Your task to perform on an android device: turn off improve location accuracy Image 0: 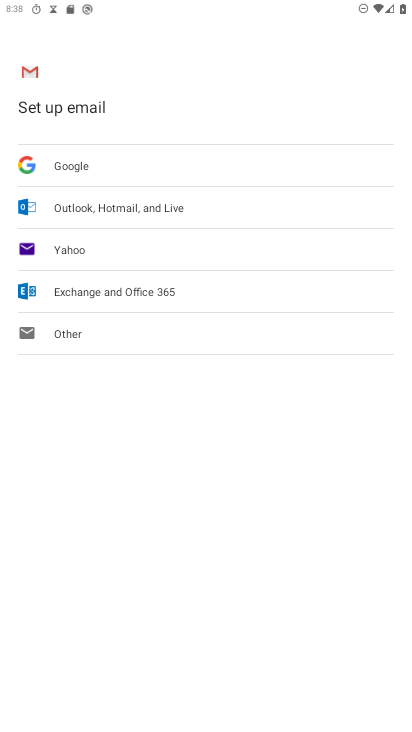
Step 0: press home button
Your task to perform on an android device: turn off improve location accuracy Image 1: 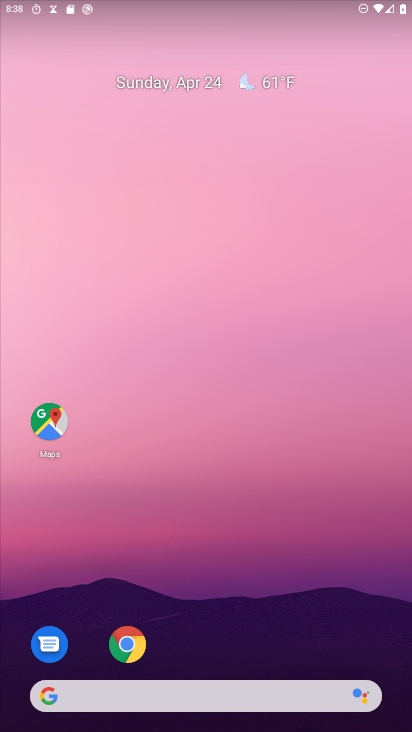
Step 1: drag from (179, 688) to (192, 104)
Your task to perform on an android device: turn off improve location accuracy Image 2: 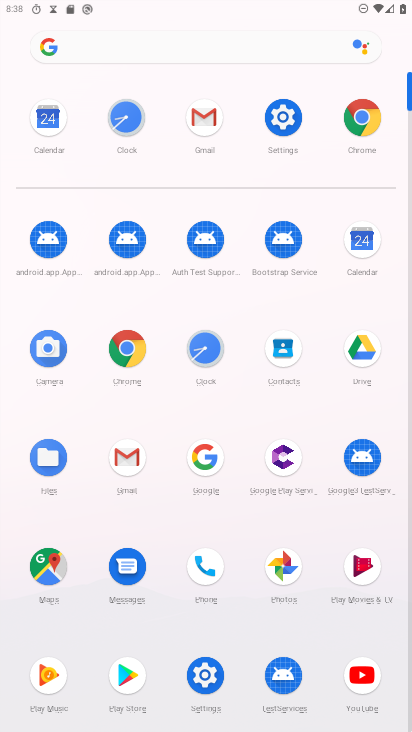
Step 2: click (212, 693)
Your task to perform on an android device: turn off improve location accuracy Image 3: 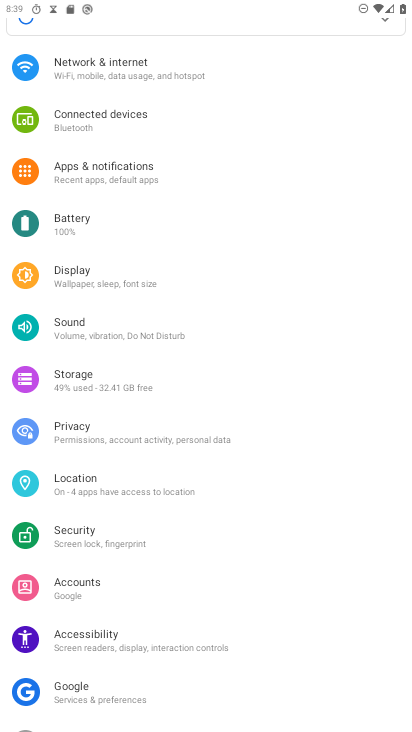
Step 3: click (108, 485)
Your task to perform on an android device: turn off improve location accuracy Image 4: 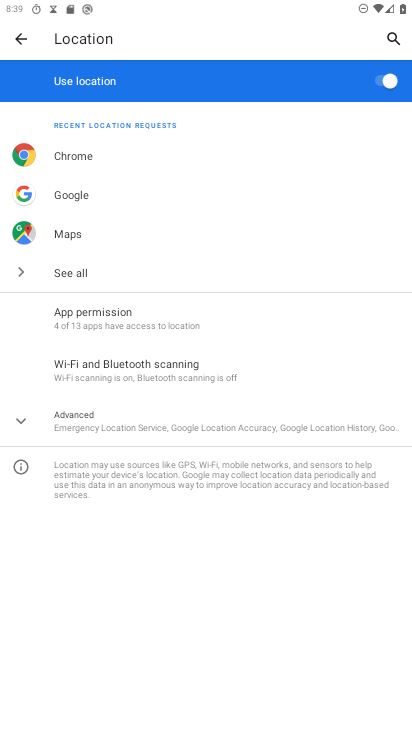
Step 4: click (93, 425)
Your task to perform on an android device: turn off improve location accuracy Image 5: 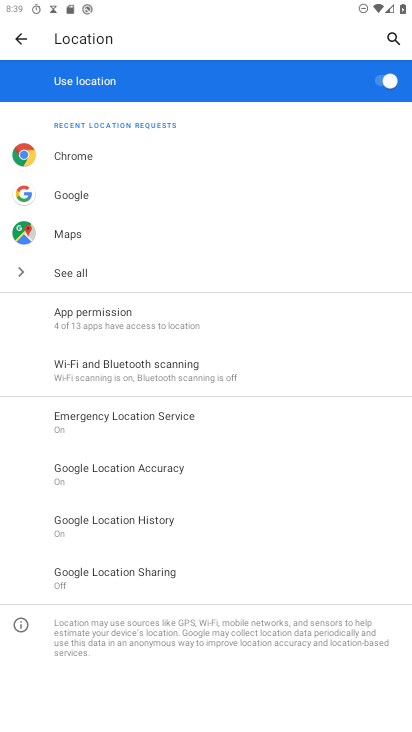
Step 5: click (137, 481)
Your task to perform on an android device: turn off improve location accuracy Image 6: 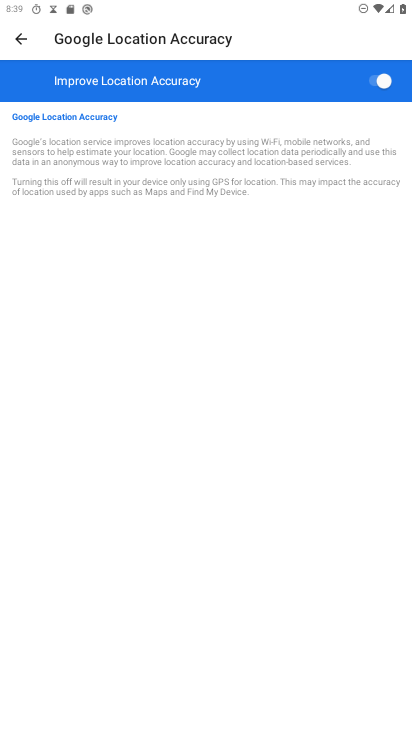
Step 6: click (376, 85)
Your task to perform on an android device: turn off improve location accuracy Image 7: 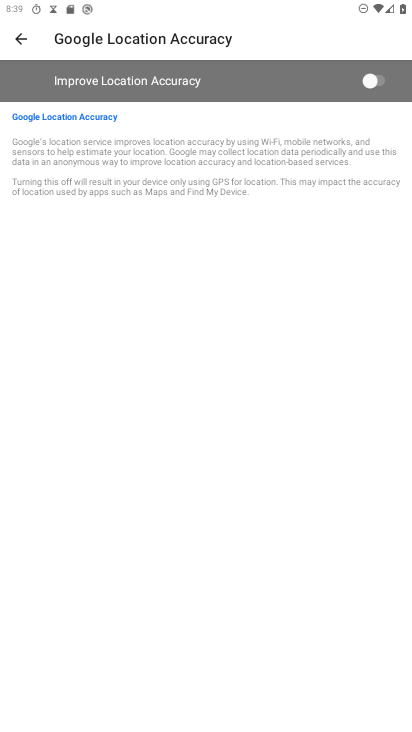
Step 7: task complete